Your task to perform on an android device: Open the clock Image 0: 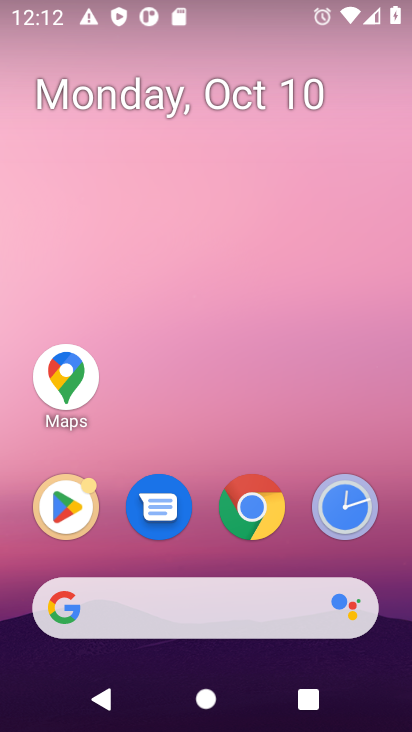
Step 0: press home button
Your task to perform on an android device: Open the clock Image 1: 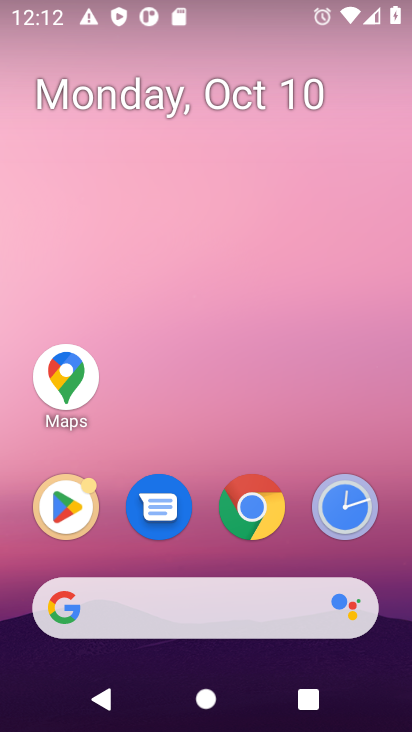
Step 1: drag from (369, 422) to (369, 55)
Your task to perform on an android device: Open the clock Image 2: 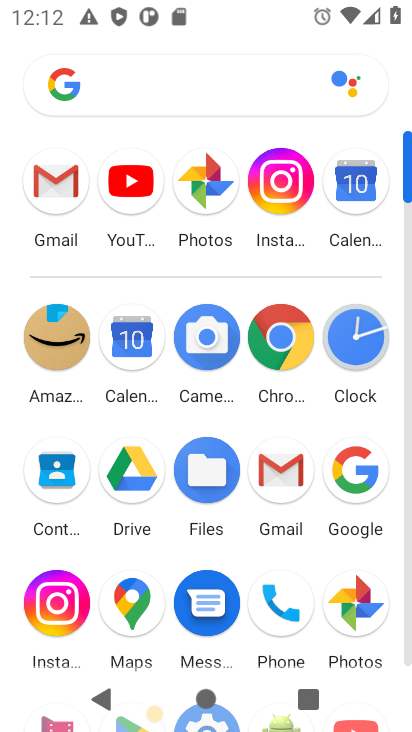
Step 2: click (367, 347)
Your task to perform on an android device: Open the clock Image 3: 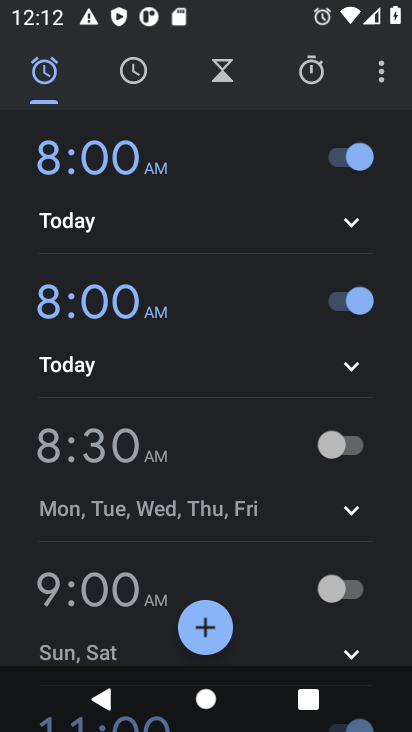
Step 3: task complete